Your task to perform on an android device: Go to CNN.com Image 0: 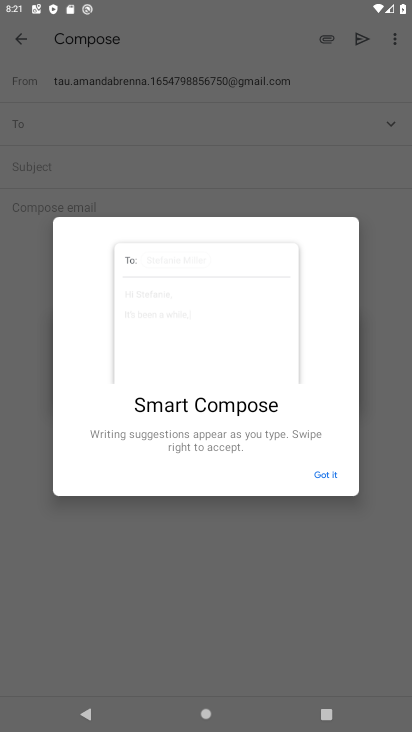
Step 0: press home button
Your task to perform on an android device: Go to CNN.com Image 1: 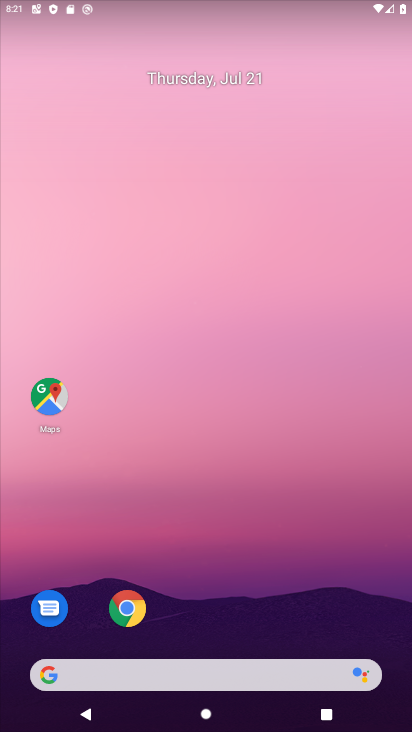
Step 1: click (99, 674)
Your task to perform on an android device: Go to CNN.com Image 2: 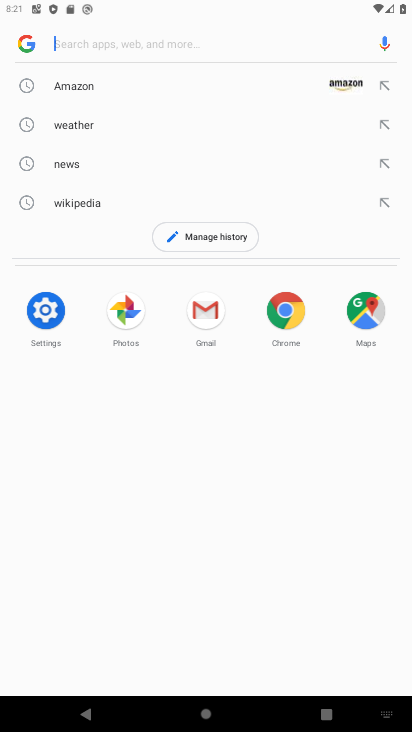
Step 2: type "CNN.com"
Your task to perform on an android device: Go to CNN.com Image 3: 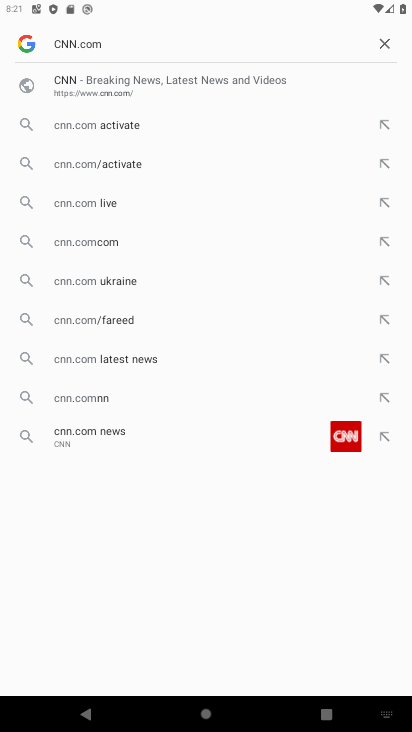
Step 3: click (74, 83)
Your task to perform on an android device: Go to CNN.com Image 4: 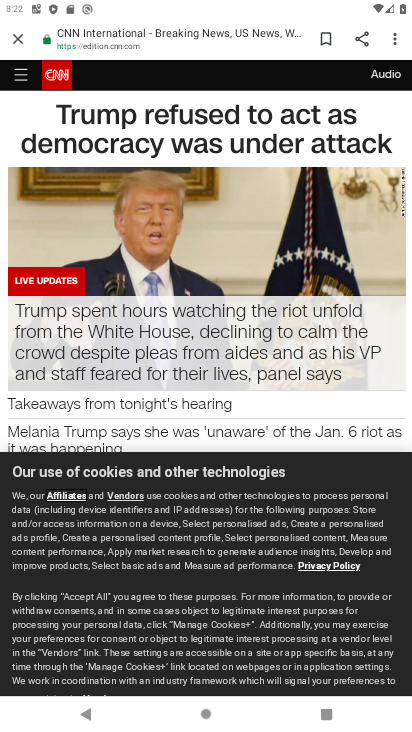
Step 4: task complete